Your task to perform on an android device: empty trash in google photos Image 0: 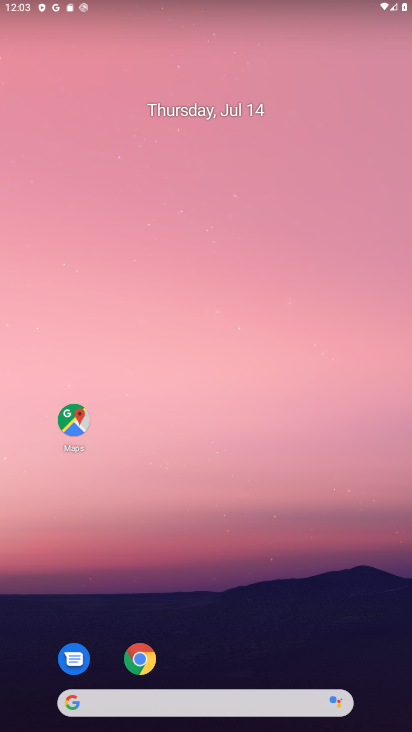
Step 0: drag from (40, 704) to (248, 76)
Your task to perform on an android device: empty trash in google photos Image 1: 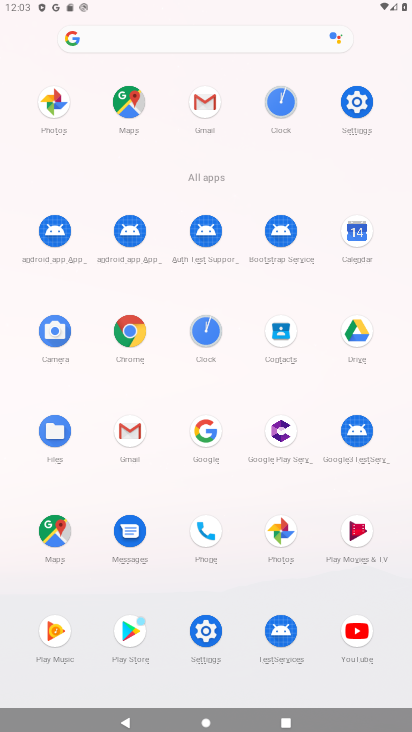
Step 1: click (277, 540)
Your task to perform on an android device: empty trash in google photos Image 2: 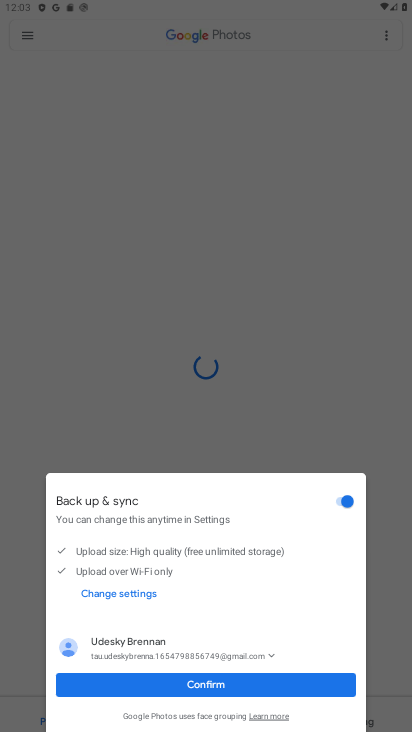
Step 2: click (222, 679)
Your task to perform on an android device: empty trash in google photos Image 3: 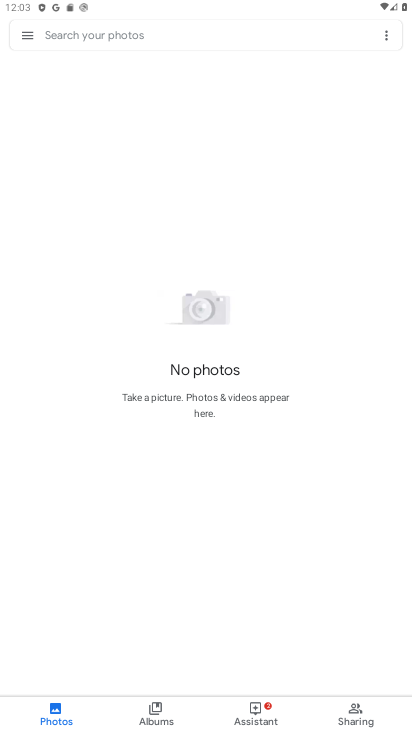
Step 3: click (26, 36)
Your task to perform on an android device: empty trash in google photos Image 4: 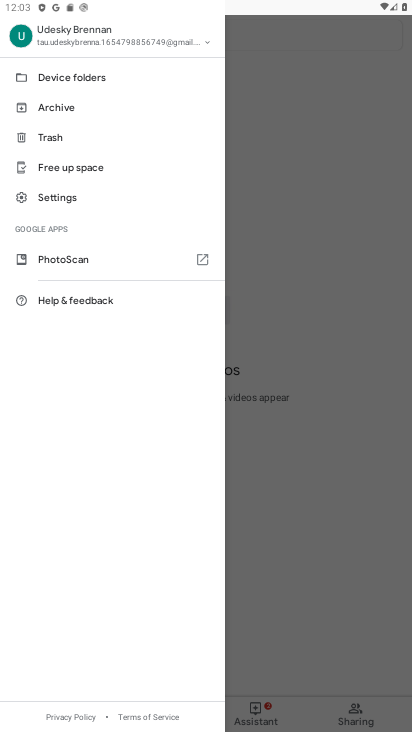
Step 4: click (52, 136)
Your task to perform on an android device: empty trash in google photos Image 5: 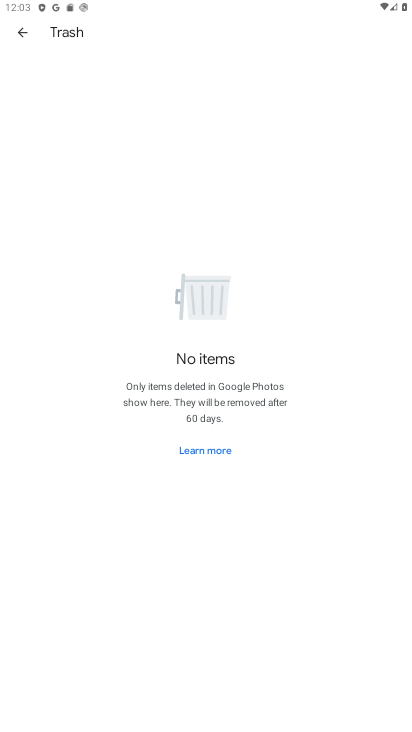
Step 5: task complete